Your task to perform on an android device: turn off javascript in the chrome app Image 0: 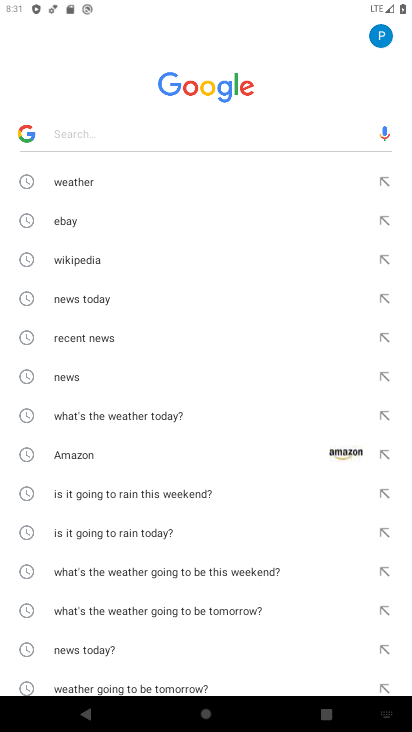
Step 0: press home button
Your task to perform on an android device: turn off javascript in the chrome app Image 1: 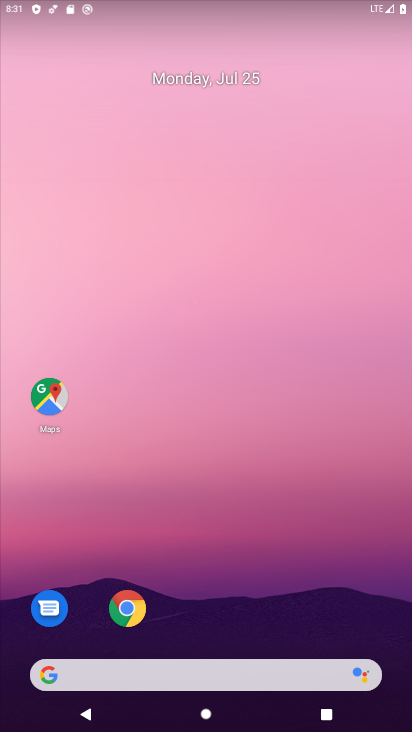
Step 1: drag from (237, 702) to (207, 137)
Your task to perform on an android device: turn off javascript in the chrome app Image 2: 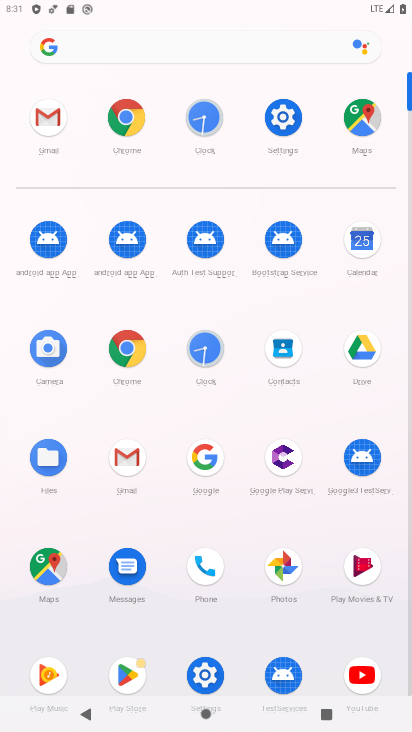
Step 2: click (128, 345)
Your task to perform on an android device: turn off javascript in the chrome app Image 3: 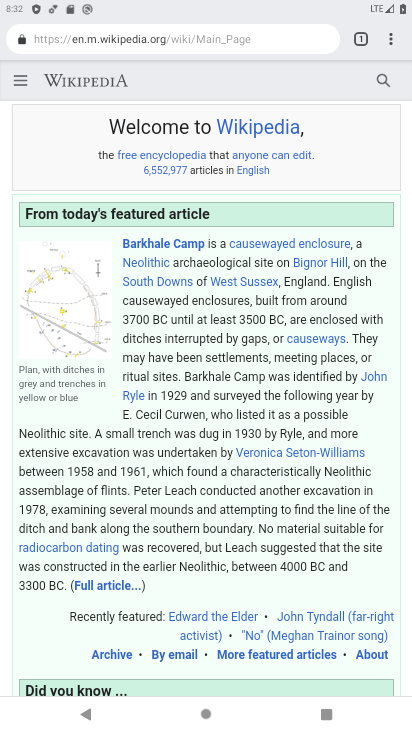
Step 3: click (391, 45)
Your task to perform on an android device: turn off javascript in the chrome app Image 4: 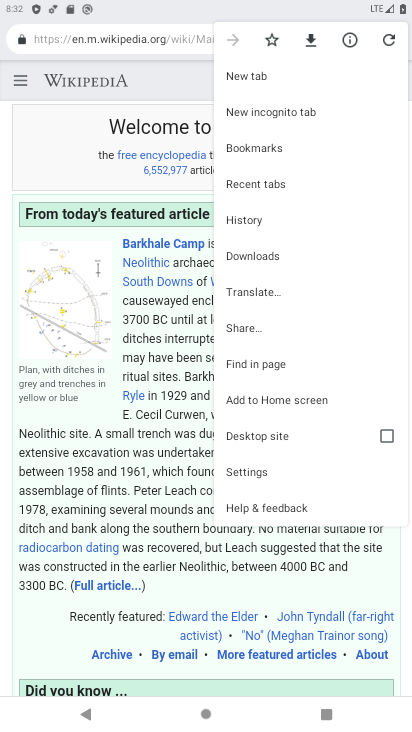
Step 4: click (240, 471)
Your task to perform on an android device: turn off javascript in the chrome app Image 5: 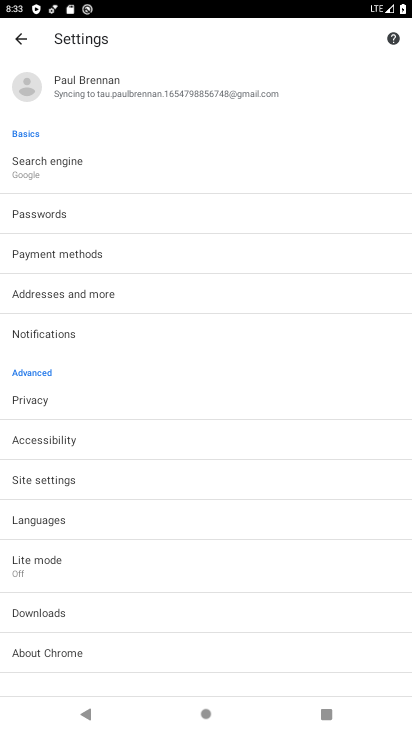
Step 5: click (40, 481)
Your task to perform on an android device: turn off javascript in the chrome app Image 6: 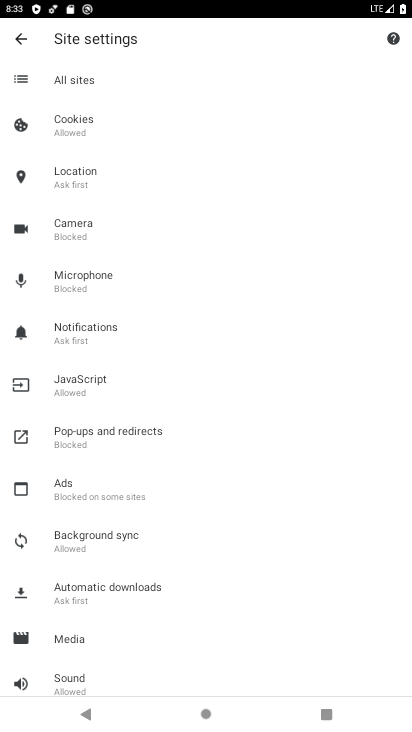
Step 6: click (84, 385)
Your task to perform on an android device: turn off javascript in the chrome app Image 7: 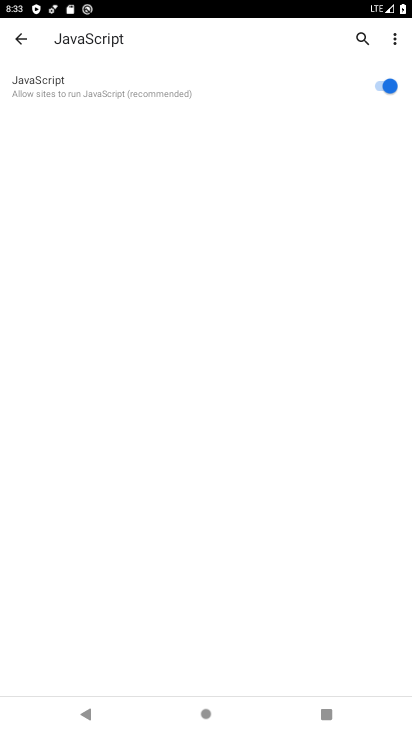
Step 7: click (386, 86)
Your task to perform on an android device: turn off javascript in the chrome app Image 8: 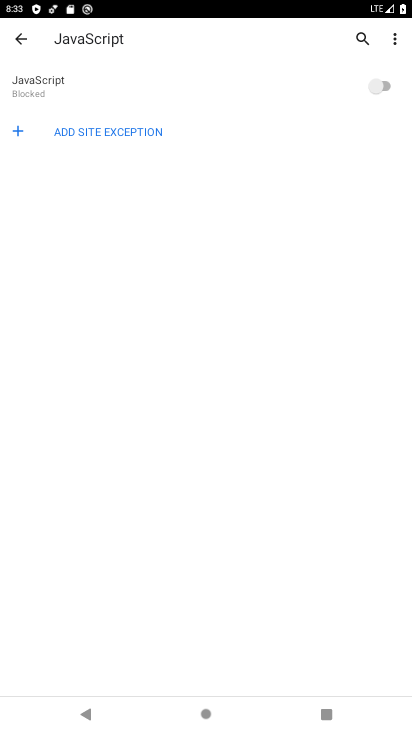
Step 8: task complete